Your task to perform on an android device: open wifi settings Image 0: 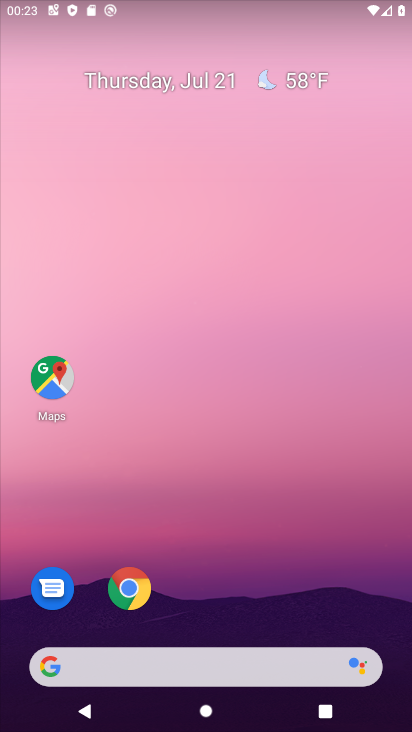
Step 0: drag from (227, 598) to (254, 90)
Your task to perform on an android device: open wifi settings Image 1: 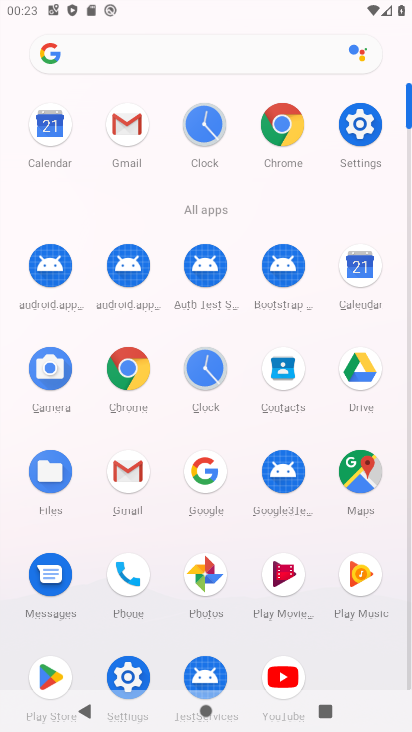
Step 1: click (349, 148)
Your task to perform on an android device: open wifi settings Image 2: 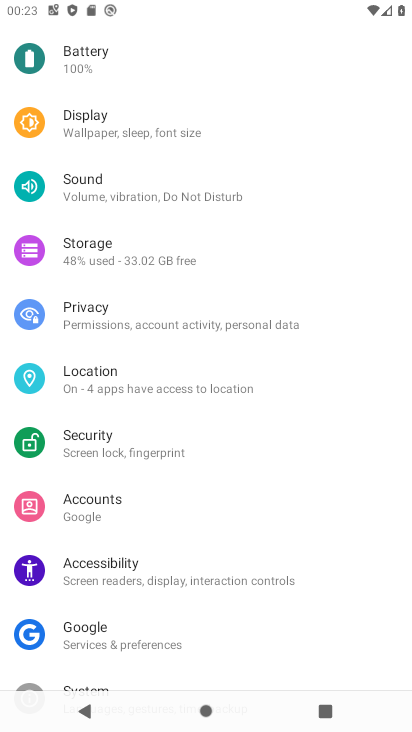
Step 2: drag from (176, 186) to (171, 610)
Your task to perform on an android device: open wifi settings Image 3: 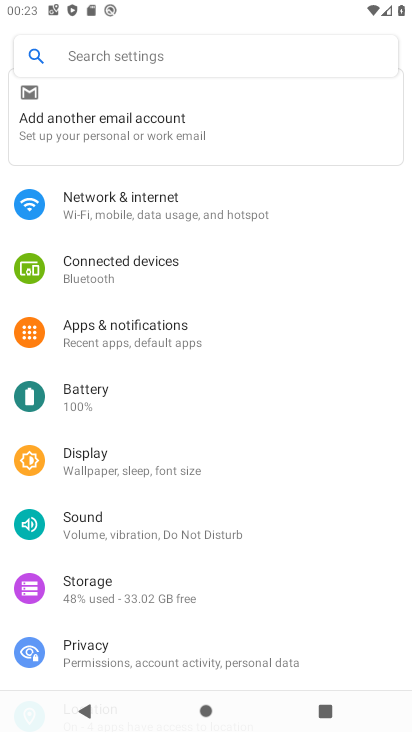
Step 3: click (143, 204)
Your task to perform on an android device: open wifi settings Image 4: 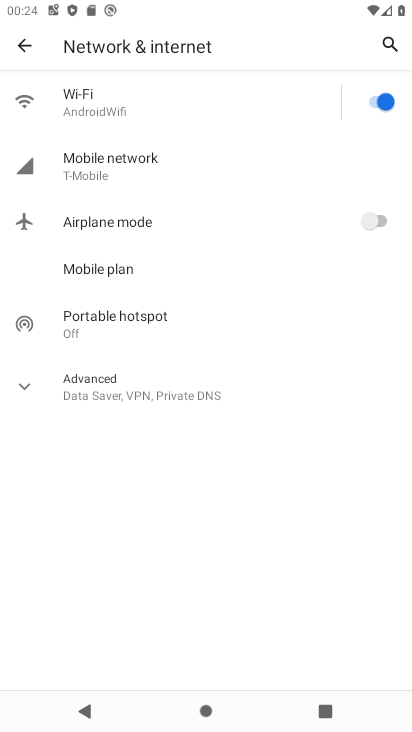
Step 4: click (99, 80)
Your task to perform on an android device: open wifi settings Image 5: 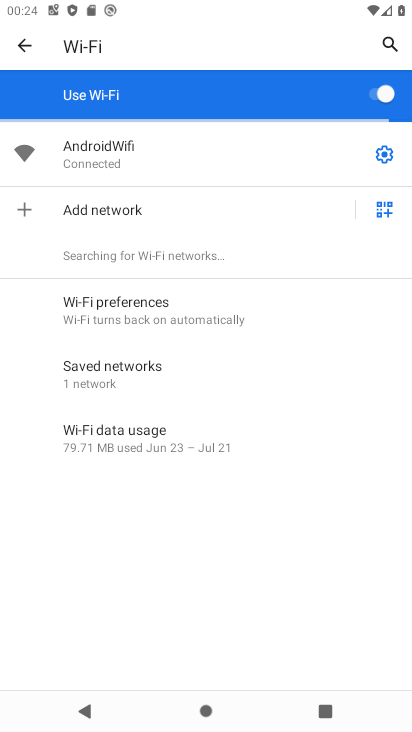
Step 5: task complete